Your task to perform on an android device: turn pop-ups on in chrome Image 0: 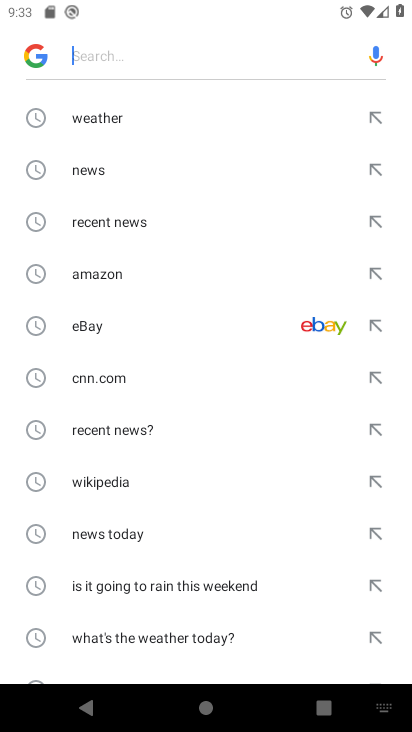
Step 0: press home button
Your task to perform on an android device: turn pop-ups on in chrome Image 1: 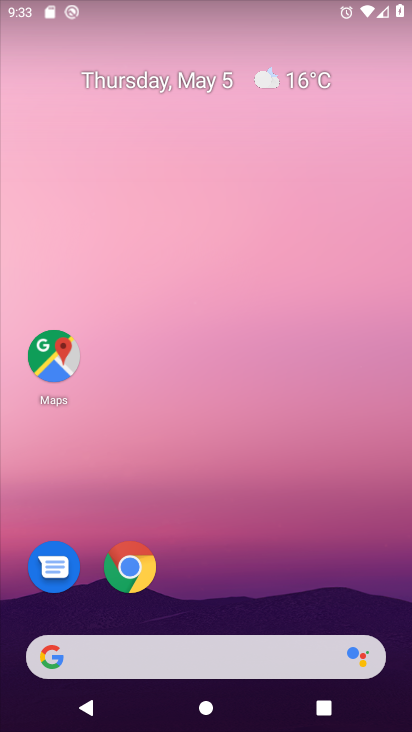
Step 1: drag from (219, 583) to (259, 24)
Your task to perform on an android device: turn pop-ups on in chrome Image 2: 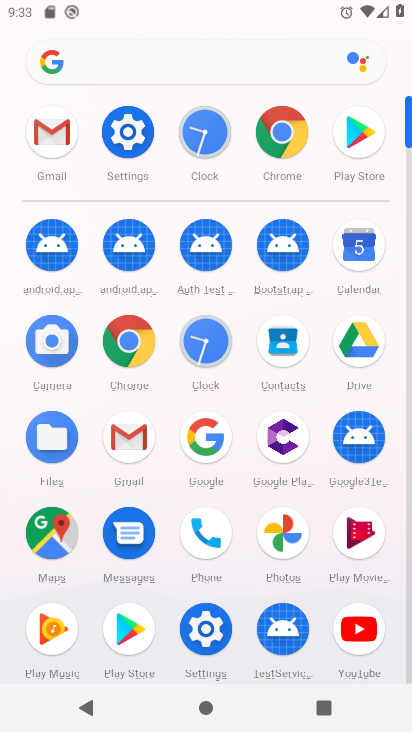
Step 2: click (279, 135)
Your task to perform on an android device: turn pop-ups on in chrome Image 3: 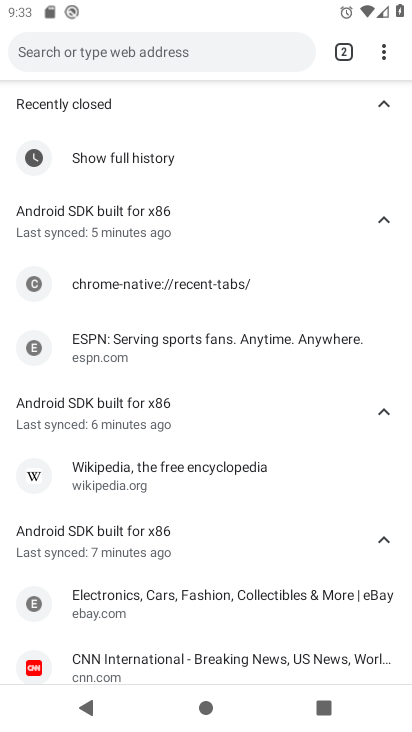
Step 3: drag from (380, 53) to (322, 436)
Your task to perform on an android device: turn pop-ups on in chrome Image 4: 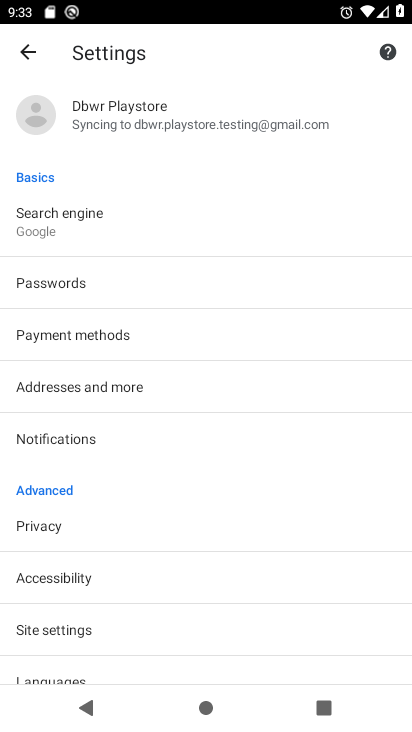
Step 4: click (189, 620)
Your task to perform on an android device: turn pop-ups on in chrome Image 5: 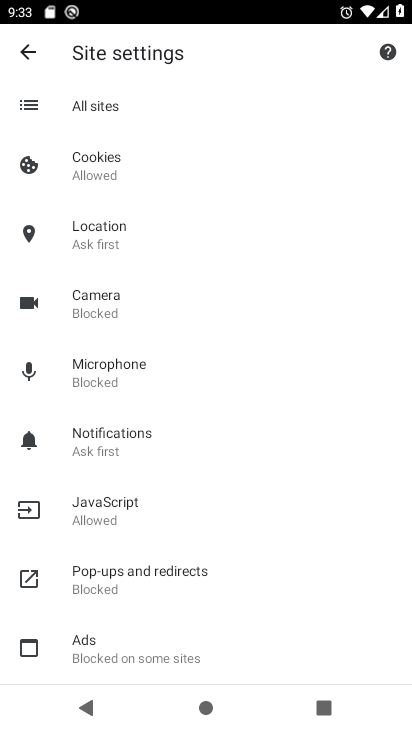
Step 5: click (191, 577)
Your task to perform on an android device: turn pop-ups on in chrome Image 6: 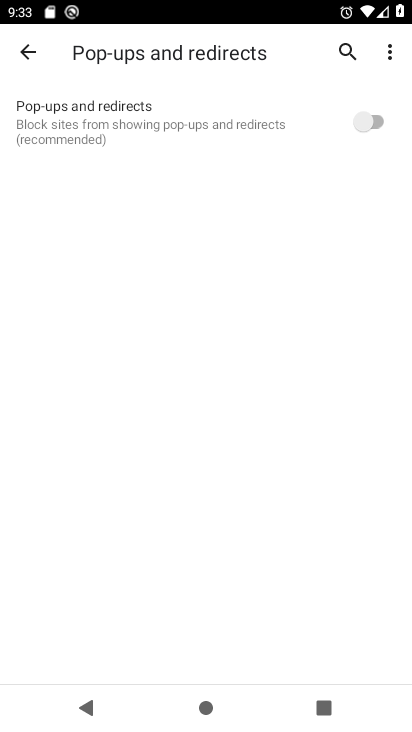
Step 6: click (370, 112)
Your task to perform on an android device: turn pop-ups on in chrome Image 7: 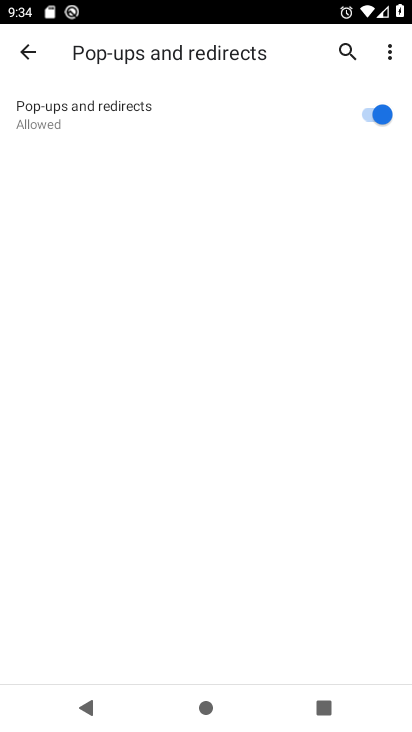
Step 7: task complete